Your task to perform on an android device: Check the news Image 0: 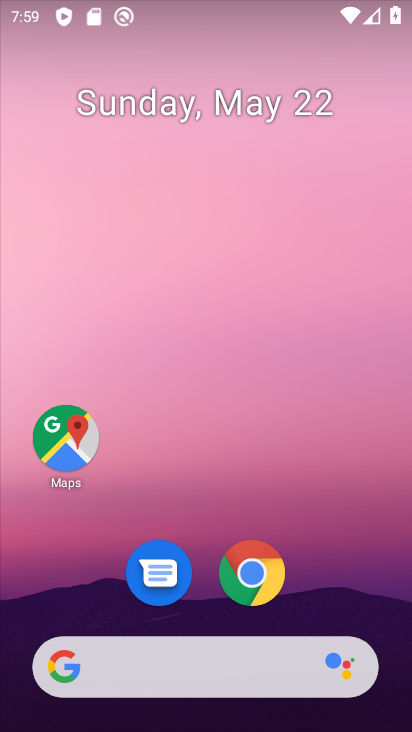
Step 0: drag from (211, 475) to (253, 121)
Your task to perform on an android device: Check the news Image 1: 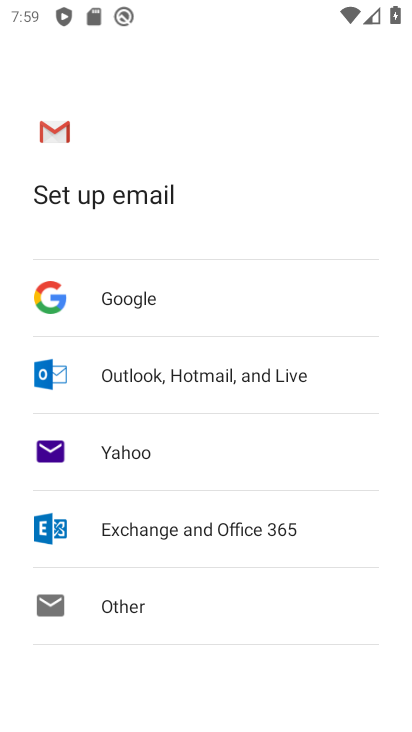
Step 1: drag from (206, 613) to (318, 107)
Your task to perform on an android device: Check the news Image 2: 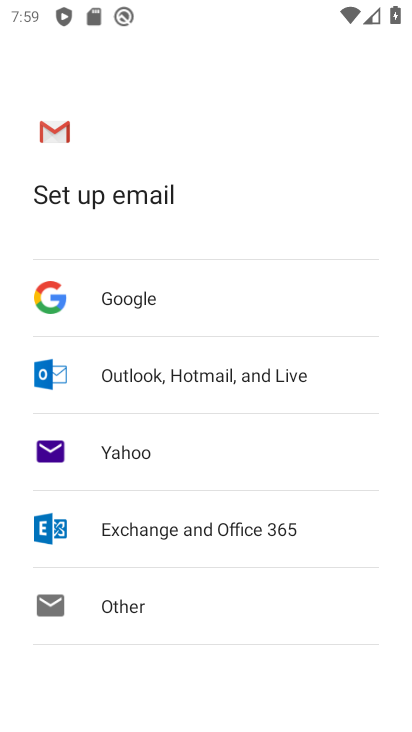
Step 2: drag from (217, 665) to (278, 113)
Your task to perform on an android device: Check the news Image 3: 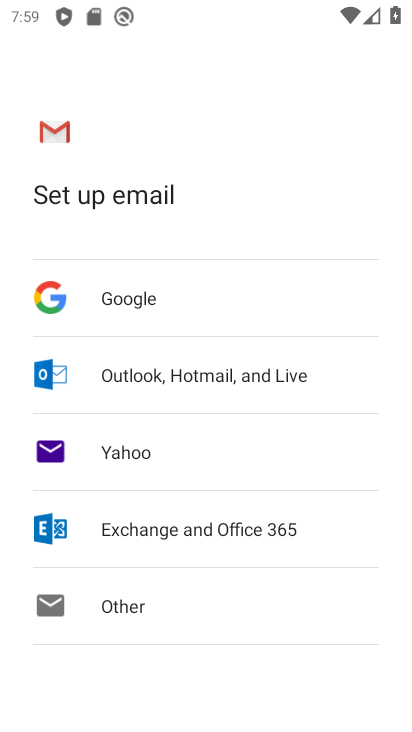
Step 3: press home button
Your task to perform on an android device: Check the news Image 4: 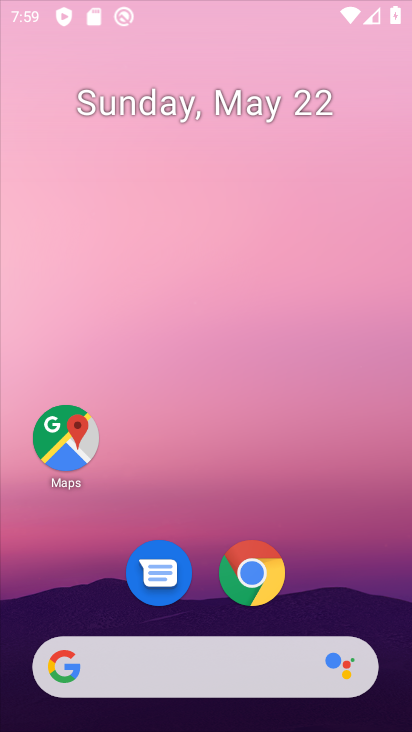
Step 4: drag from (170, 667) to (229, 26)
Your task to perform on an android device: Check the news Image 5: 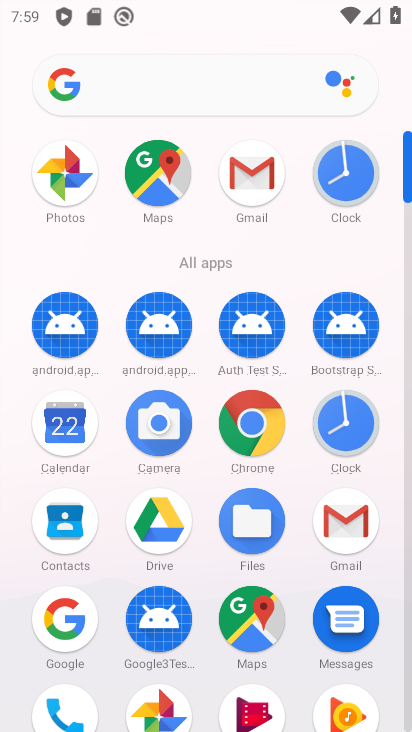
Step 5: click (125, 77)
Your task to perform on an android device: Check the news Image 6: 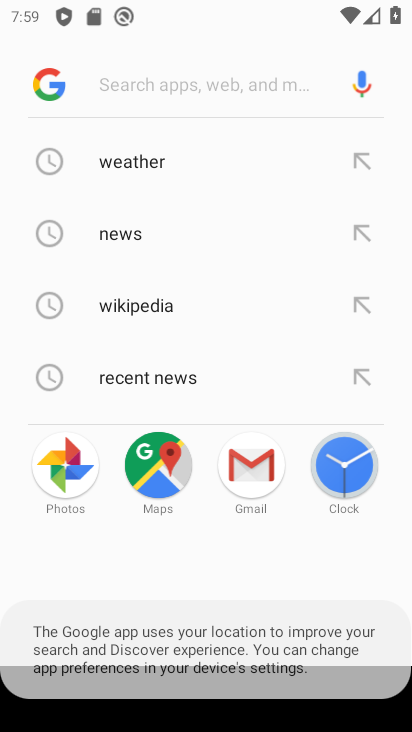
Step 6: click (135, 230)
Your task to perform on an android device: Check the news Image 7: 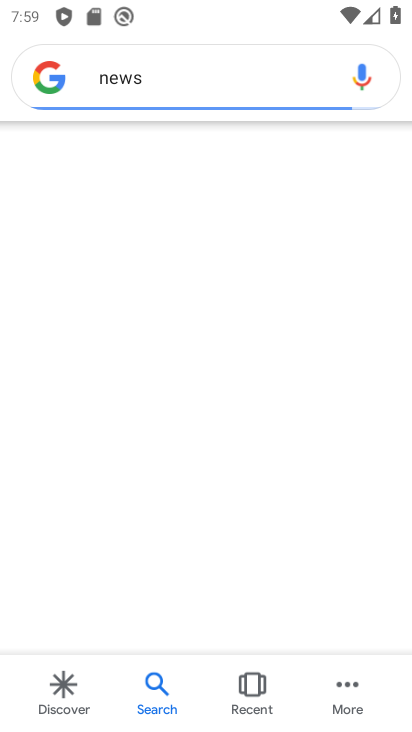
Step 7: task complete